Your task to perform on an android device: turn on bluetooth scan Image 0: 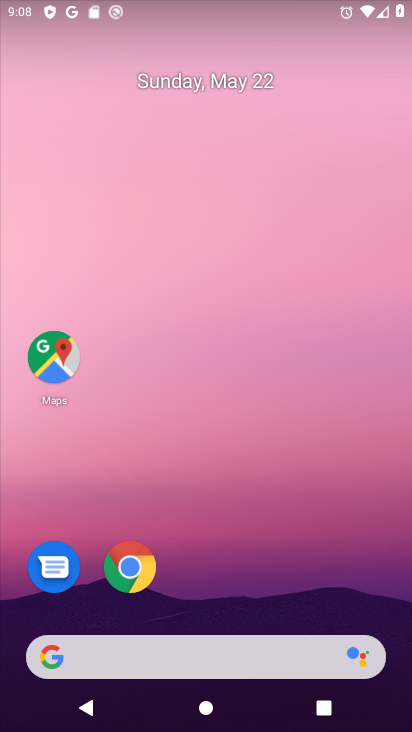
Step 0: drag from (191, 616) to (180, 0)
Your task to perform on an android device: turn on bluetooth scan Image 1: 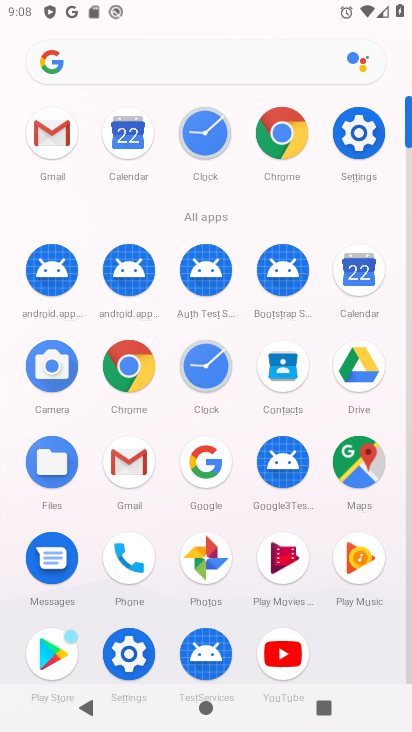
Step 1: click (124, 652)
Your task to perform on an android device: turn on bluetooth scan Image 2: 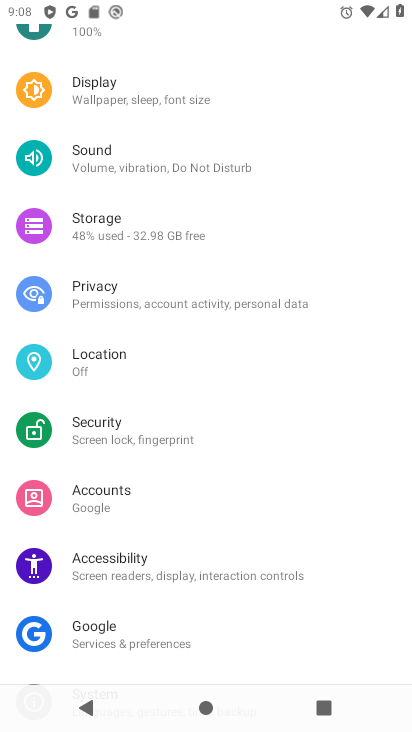
Step 2: click (124, 368)
Your task to perform on an android device: turn on bluetooth scan Image 3: 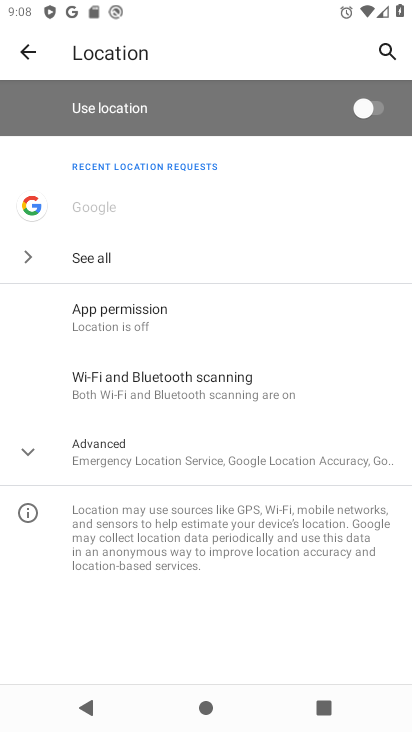
Step 3: click (178, 400)
Your task to perform on an android device: turn on bluetooth scan Image 4: 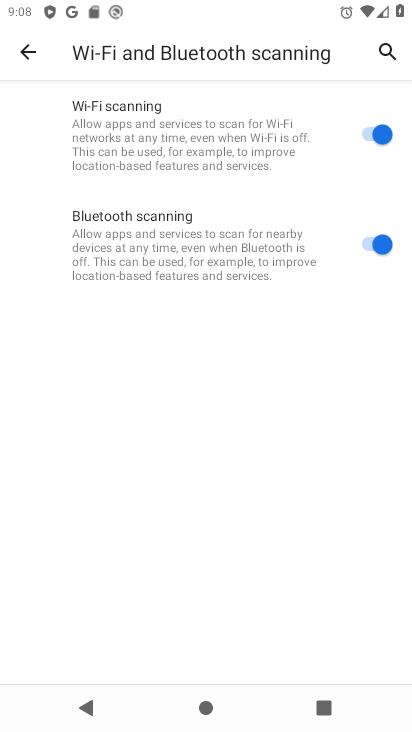
Step 4: task complete